Your task to perform on an android device: turn off airplane mode Image 0: 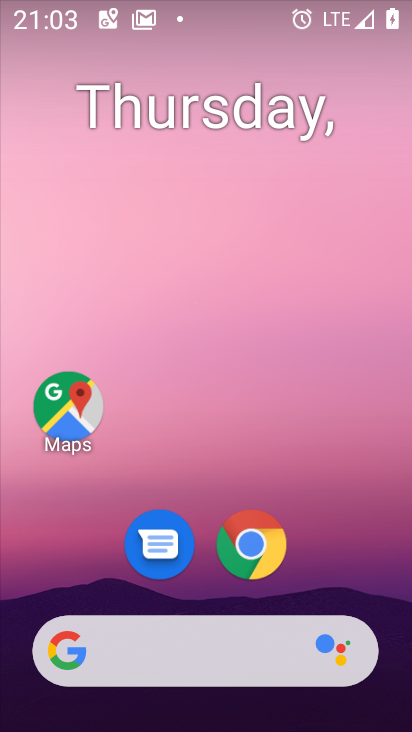
Step 0: drag from (232, 22) to (190, 612)
Your task to perform on an android device: turn off airplane mode Image 1: 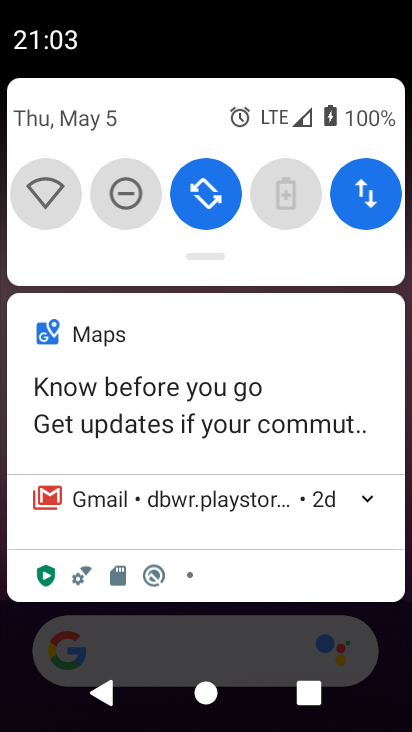
Step 1: task complete